Your task to perform on an android device: Go to settings Image 0: 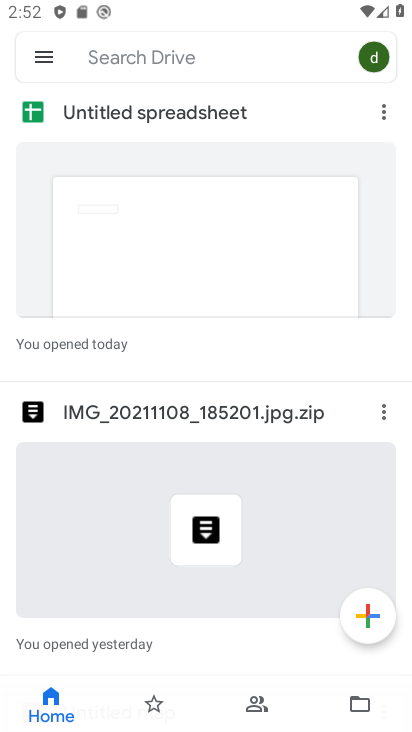
Step 0: press home button
Your task to perform on an android device: Go to settings Image 1: 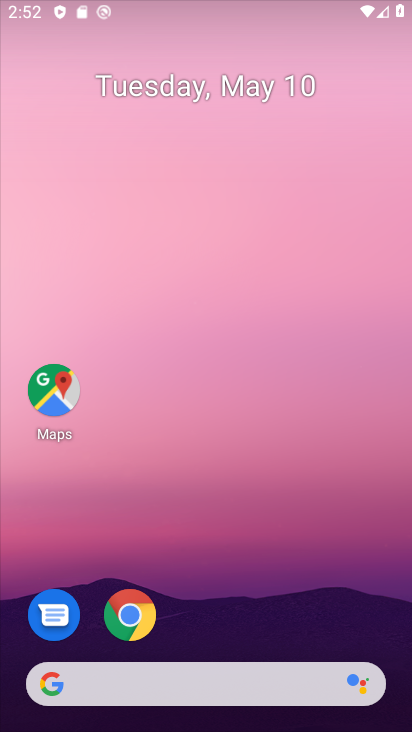
Step 1: drag from (283, 579) to (286, 134)
Your task to perform on an android device: Go to settings Image 2: 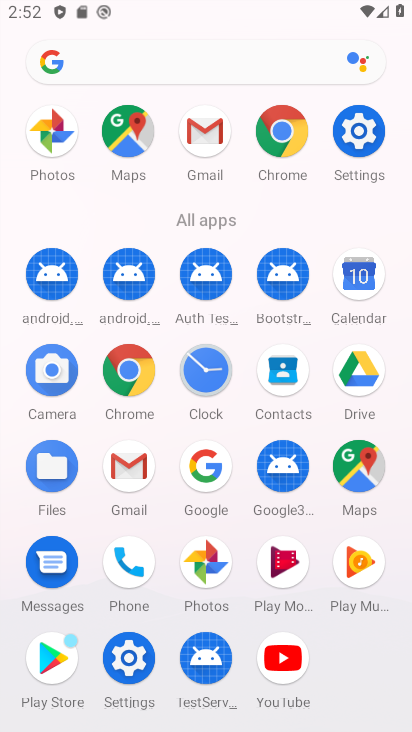
Step 2: click (369, 155)
Your task to perform on an android device: Go to settings Image 3: 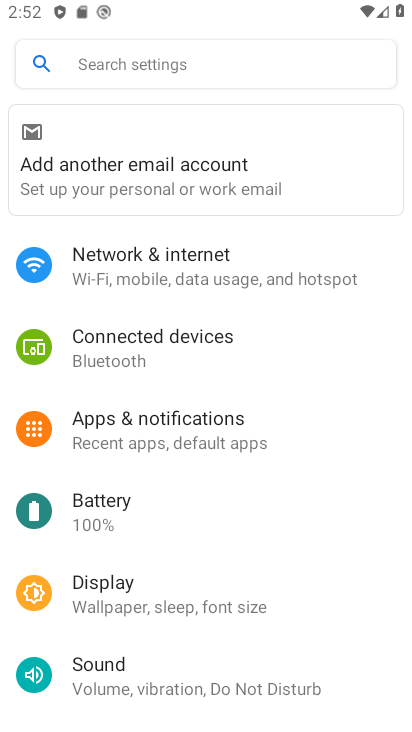
Step 3: task complete